Your task to perform on an android device: Go to accessibility settings Image 0: 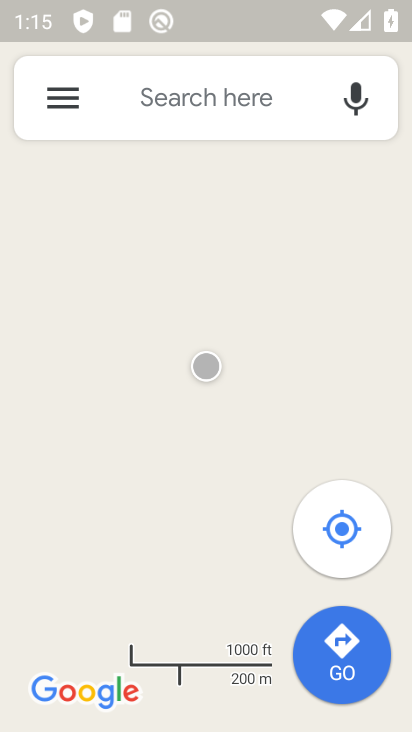
Step 0: press home button
Your task to perform on an android device: Go to accessibility settings Image 1: 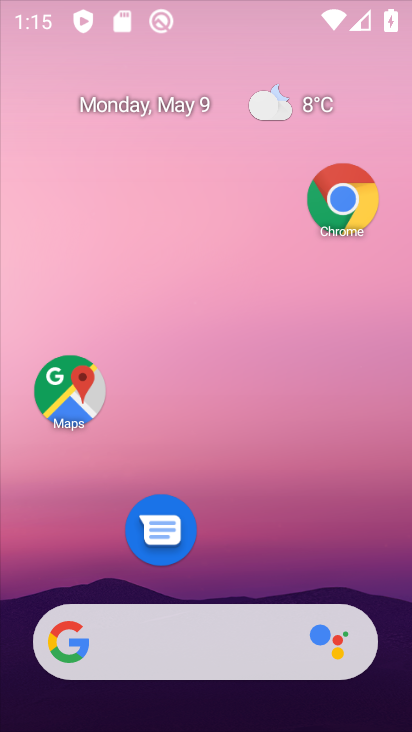
Step 1: drag from (255, 552) to (248, 139)
Your task to perform on an android device: Go to accessibility settings Image 2: 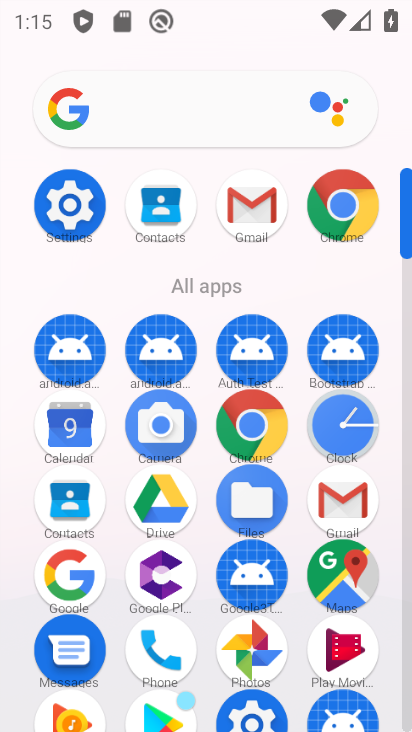
Step 2: click (70, 208)
Your task to perform on an android device: Go to accessibility settings Image 3: 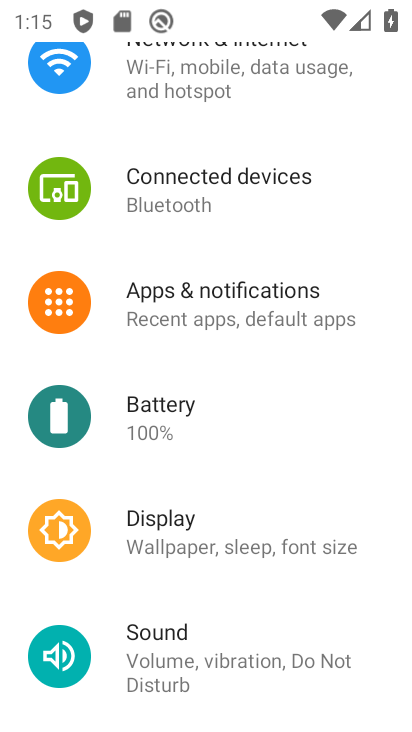
Step 3: drag from (250, 535) to (229, 173)
Your task to perform on an android device: Go to accessibility settings Image 4: 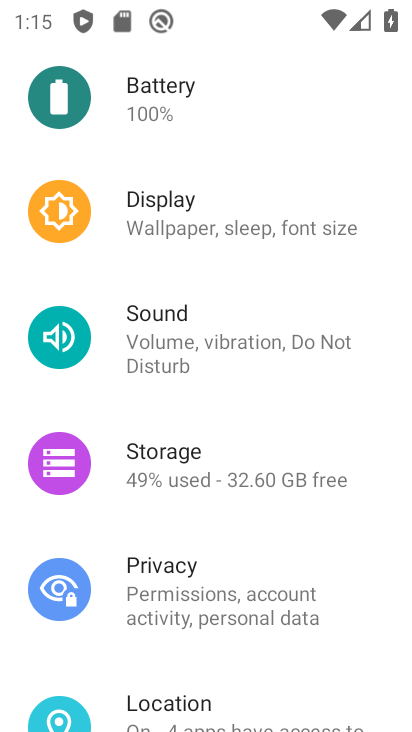
Step 4: drag from (181, 633) to (201, 198)
Your task to perform on an android device: Go to accessibility settings Image 5: 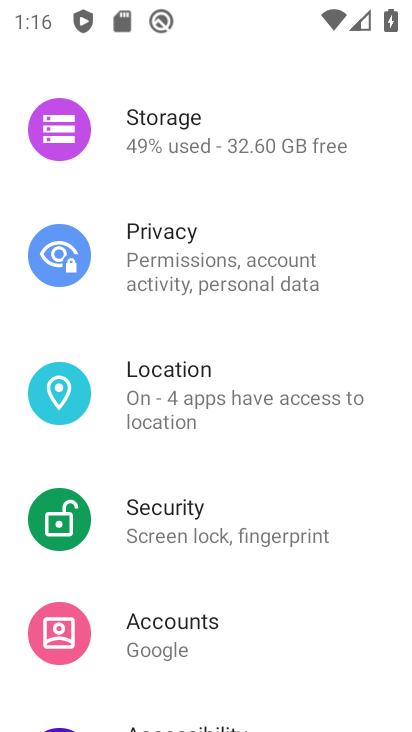
Step 5: drag from (208, 627) to (212, 351)
Your task to perform on an android device: Go to accessibility settings Image 6: 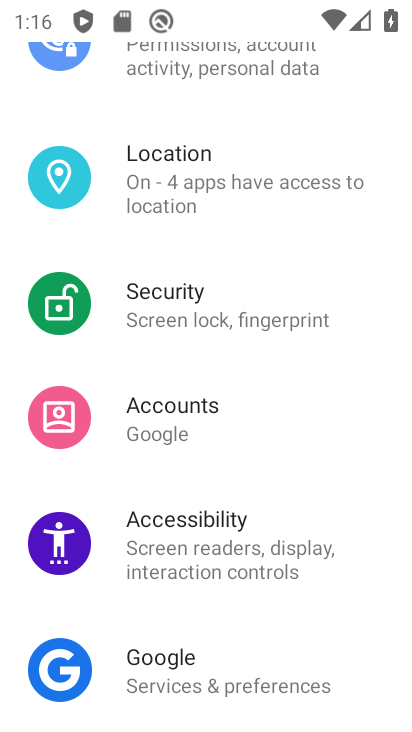
Step 6: click (204, 539)
Your task to perform on an android device: Go to accessibility settings Image 7: 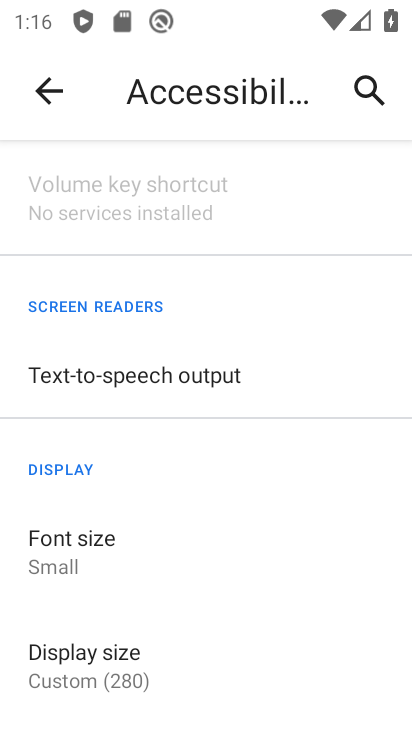
Step 7: task complete